Your task to perform on an android device: turn pop-ups off in chrome Image 0: 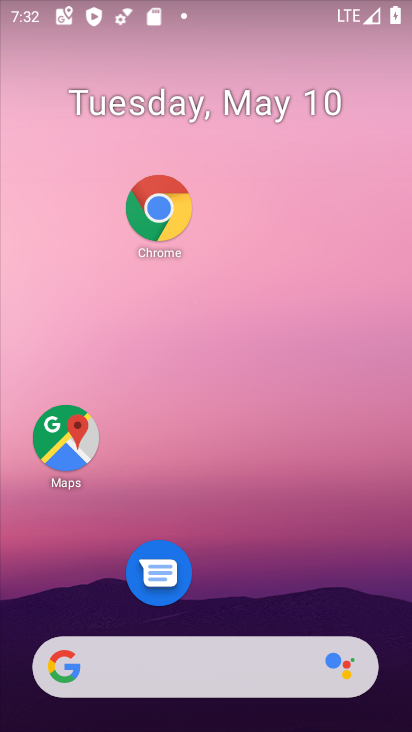
Step 0: press home button
Your task to perform on an android device: turn pop-ups off in chrome Image 1: 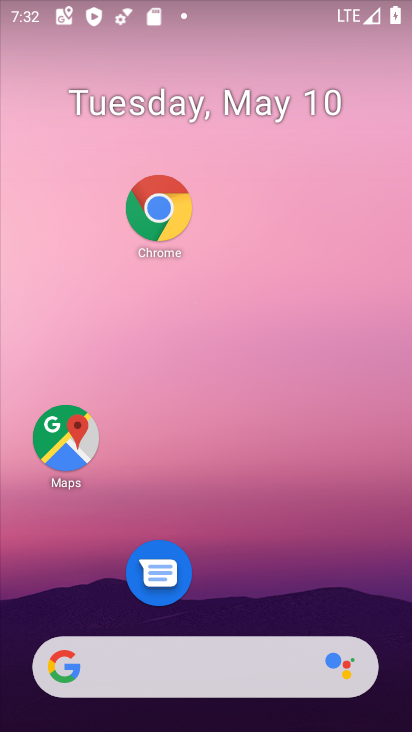
Step 1: drag from (328, 692) to (254, 275)
Your task to perform on an android device: turn pop-ups off in chrome Image 2: 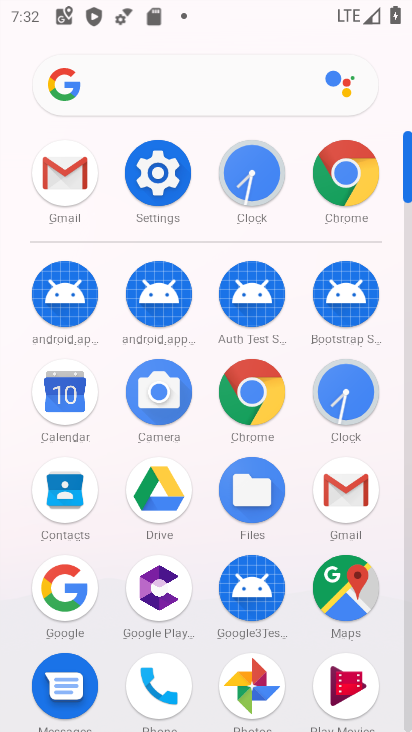
Step 2: click (364, 158)
Your task to perform on an android device: turn pop-ups off in chrome Image 3: 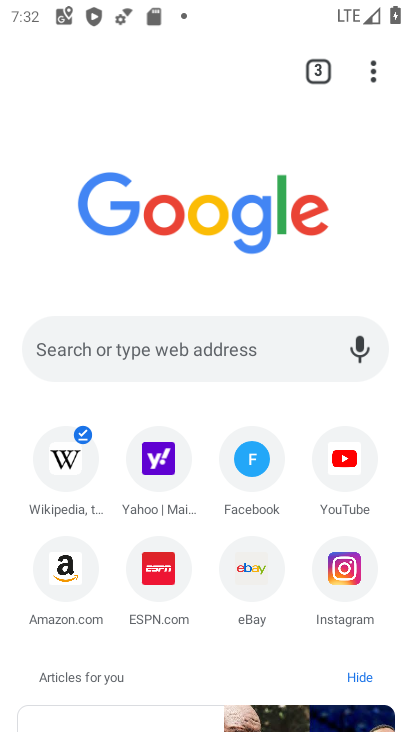
Step 3: click (362, 83)
Your task to perform on an android device: turn pop-ups off in chrome Image 4: 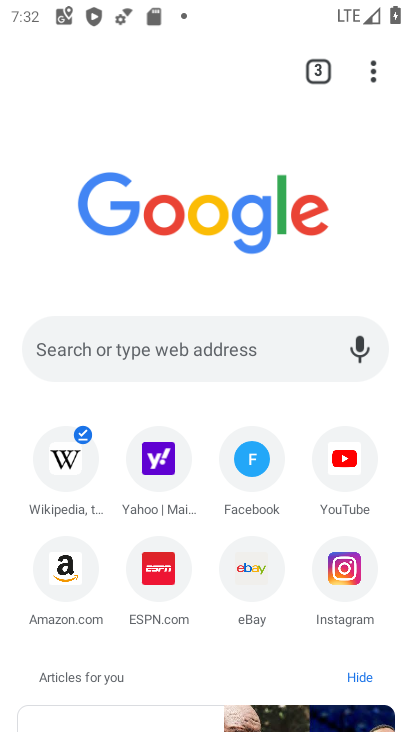
Step 4: click (372, 88)
Your task to perform on an android device: turn pop-ups off in chrome Image 5: 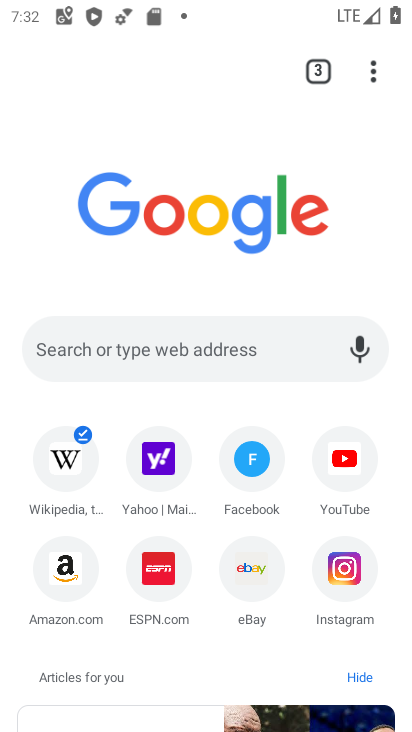
Step 5: click (365, 88)
Your task to perform on an android device: turn pop-ups off in chrome Image 6: 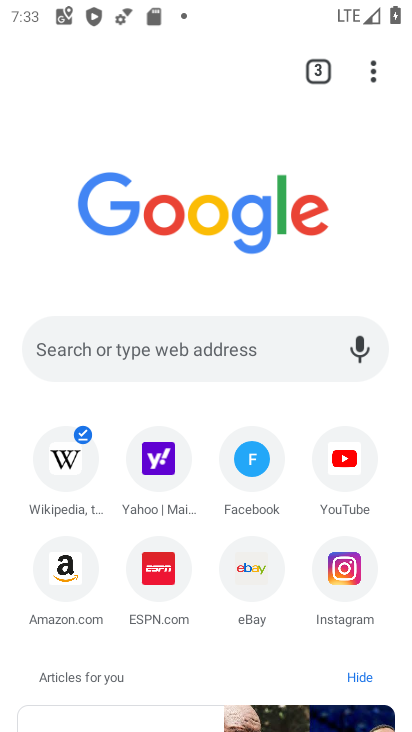
Step 6: click (370, 84)
Your task to perform on an android device: turn pop-ups off in chrome Image 7: 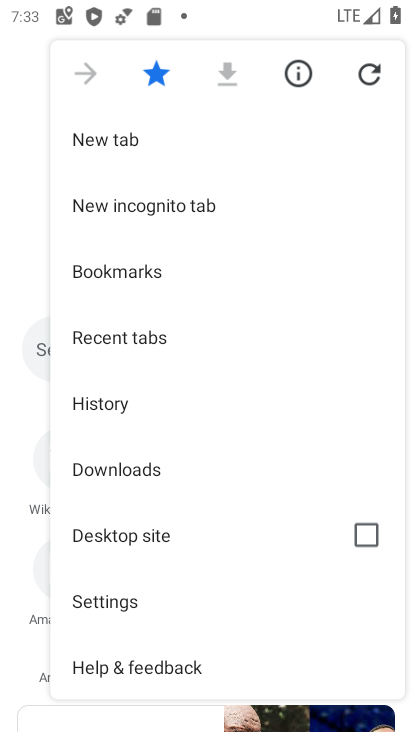
Step 7: click (141, 595)
Your task to perform on an android device: turn pop-ups off in chrome Image 8: 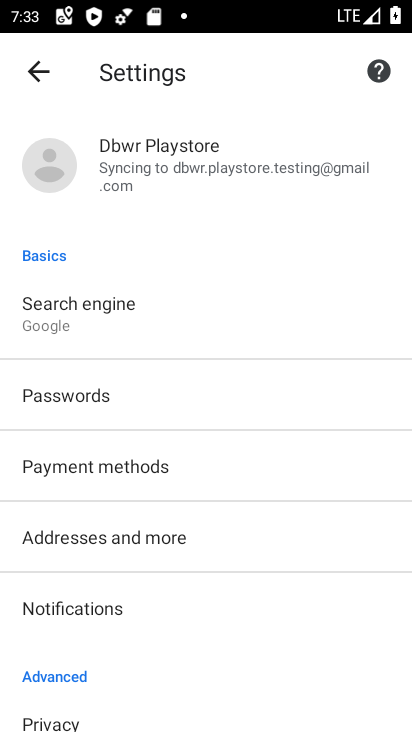
Step 8: drag from (141, 595) to (140, 395)
Your task to perform on an android device: turn pop-ups off in chrome Image 9: 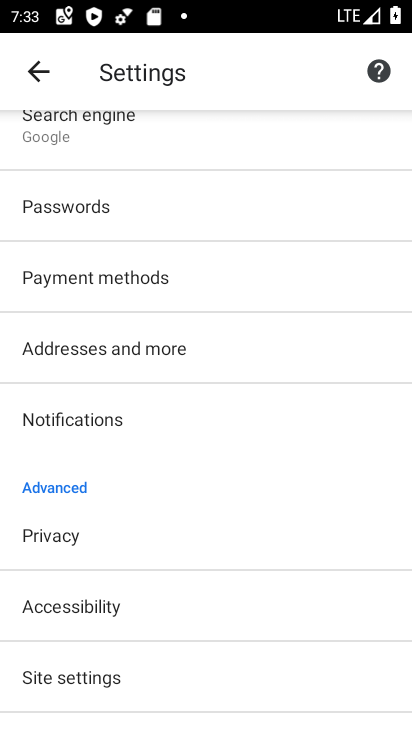
Step 9: click (86, 678)
Your task to perform on an android device: turn pop-ups off in chrome Image 10: 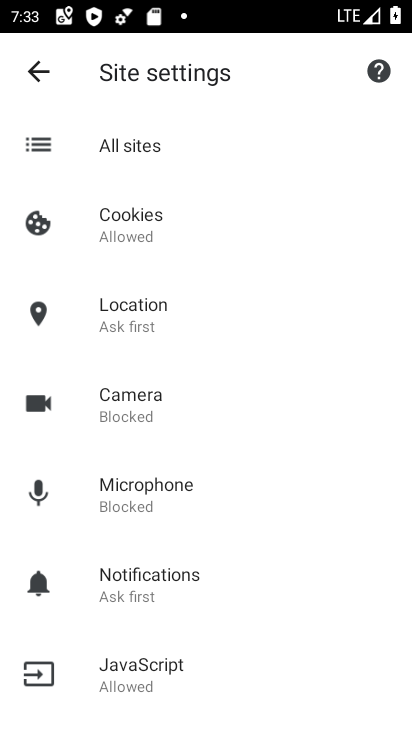
Step 10: drag from (215, 595) to (260, 444)
Your task to perform on an android device: turn pop-ups off in chrome Image 11: 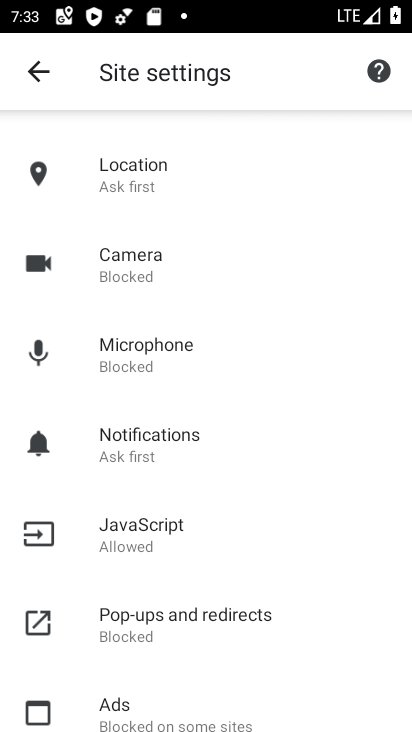
Step 11: click (167, 610)
Your task to perform on an android device: turn pop-ups off in chrome Image 12: 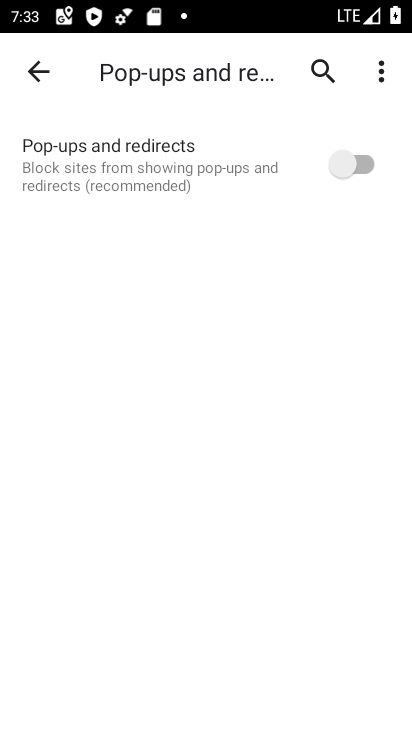
Step 12: click (330, 161)
Your task to perform on an android device: turn pop-ups off in chrome Image 13: 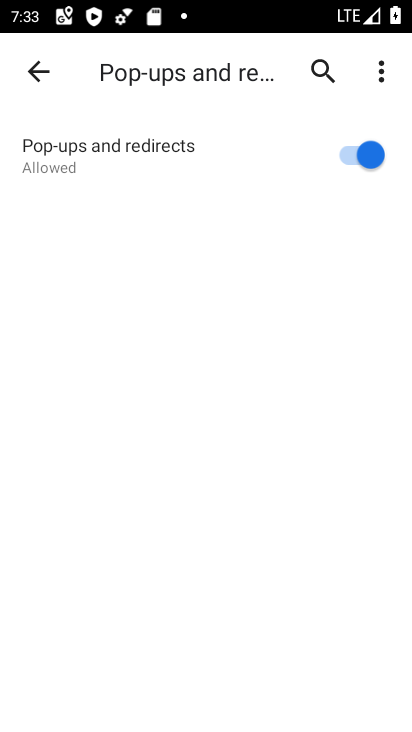
Step 13: click (330, 161)
Your task to perform on an android device: turn pop-ups off in chrome Image 14: 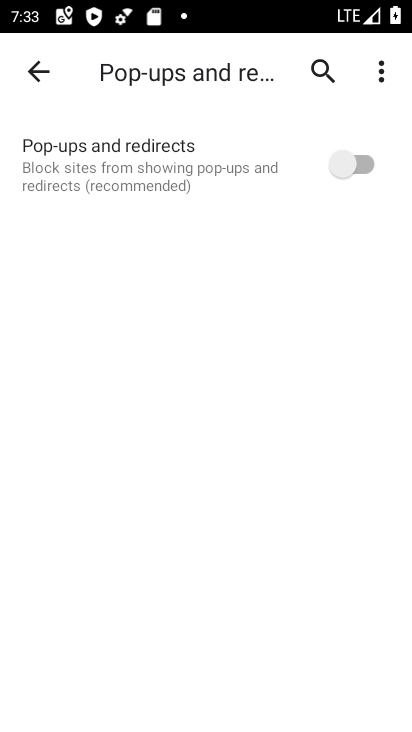
Step 14: task complete